Your task to perform on an android device: What is the recent news? Image 0: 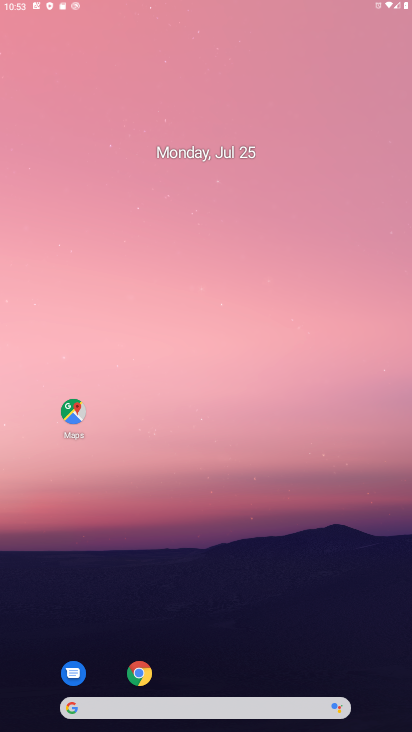
Step 0: press home button
Your task to perform on an android device: What is the recent news? Image 1: 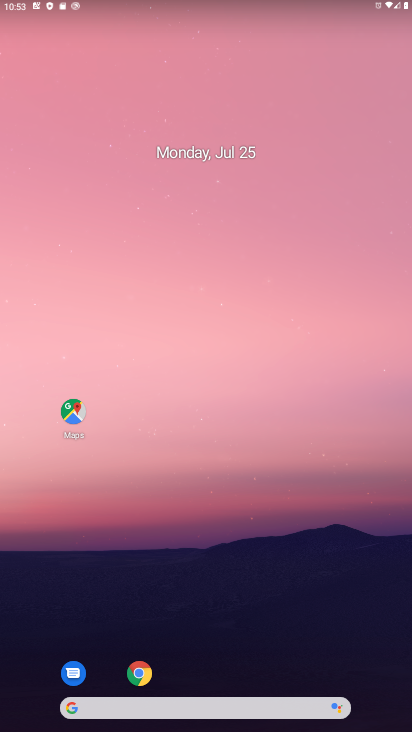
Step 1: task complete